Your task to perform on an android device: Open CNN.com Image 0: 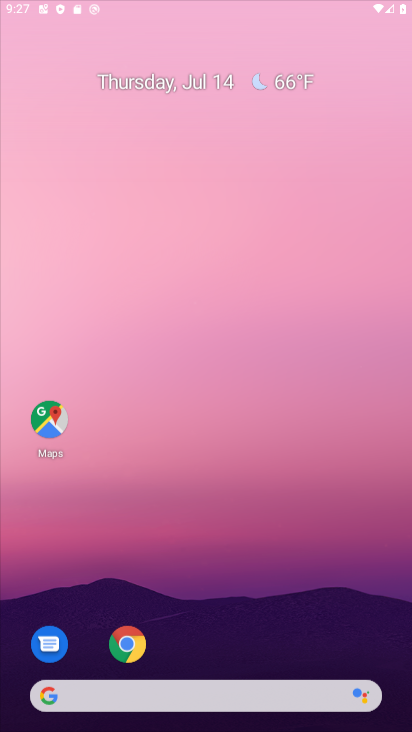
Step 0: click (203, 380)
Your task to perform on an android device: Open CNN.com Image 1: 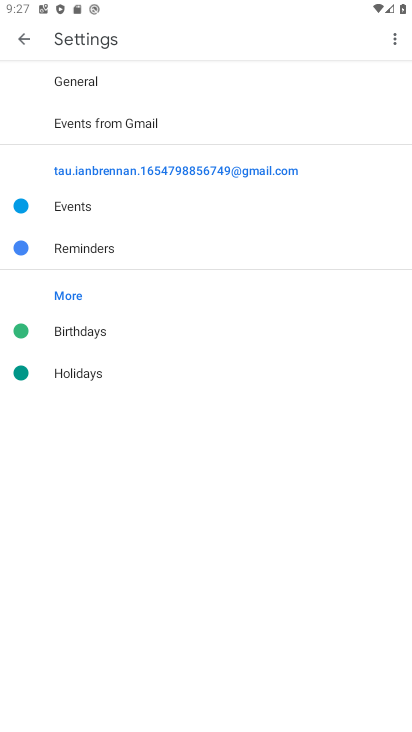
Step 1: click (17, 31)
Your task to perform on an android device: Open CNN.com Image 2: 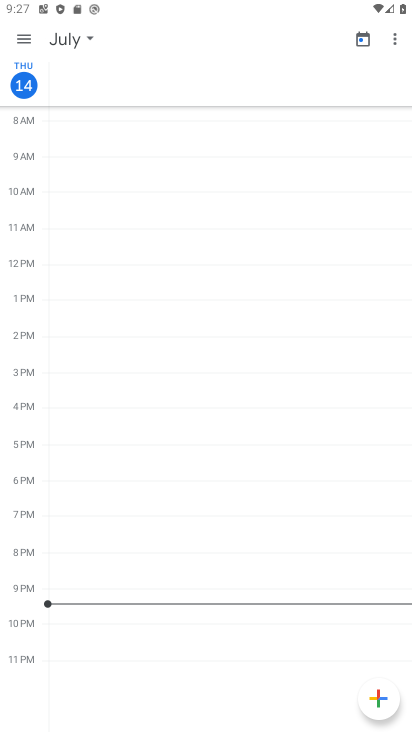
Step 2: press back button
Your task to perform on an android device: Open CNN.com Image 3: 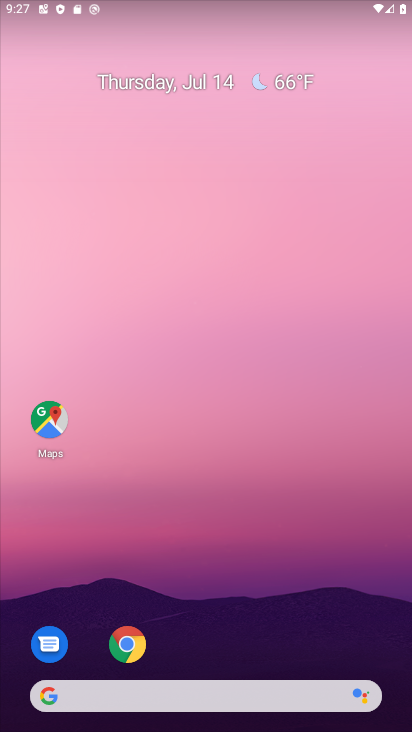
Step 3: click (165, 144)
Your task to perform on an android device: Open CNN.com Image 4: 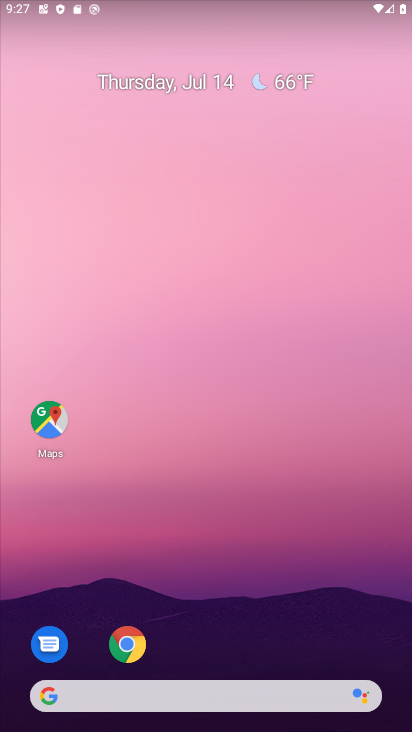
Step 4: drag from (156, 550) to (31, 80)
Your task to perform on an android device: Open CNN.com Image 5: 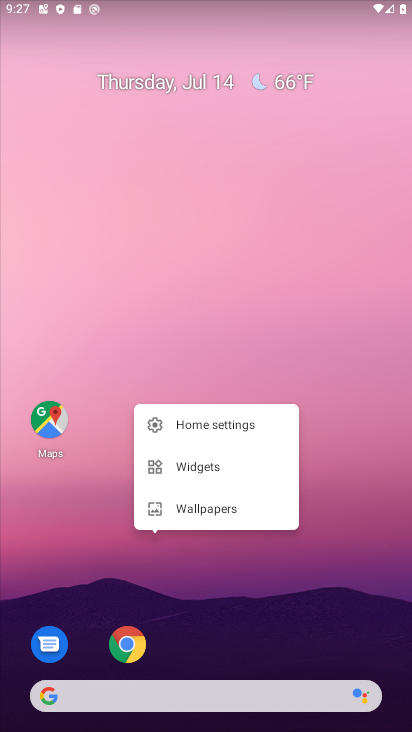
Step 5: click (39, 187)
Your task to perform on an android device: Open CNN.com Image 6: 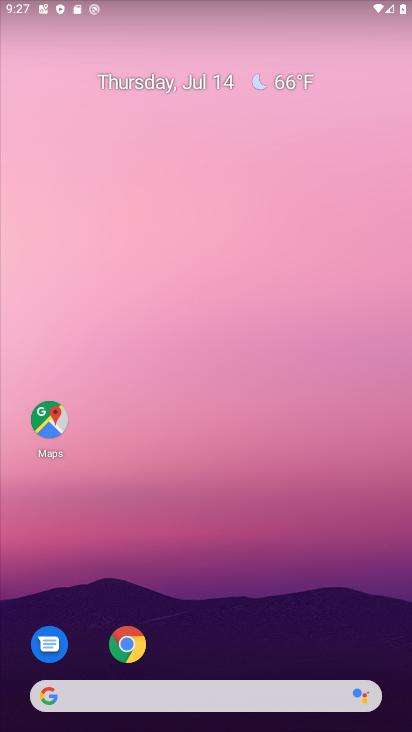
Step 6: click (117, 234)
Your task to perform on an android device: Open CNN.com Image 7: 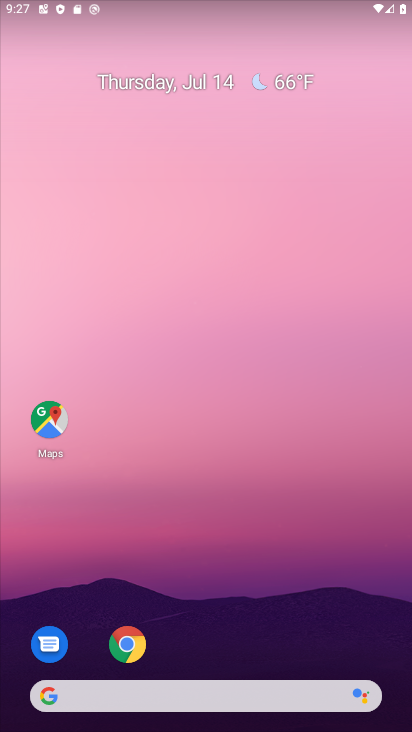
Step 7: drag from (166, 354) to (123, 95)
Your task to perform on an android device: Open CNN.com Image 8: 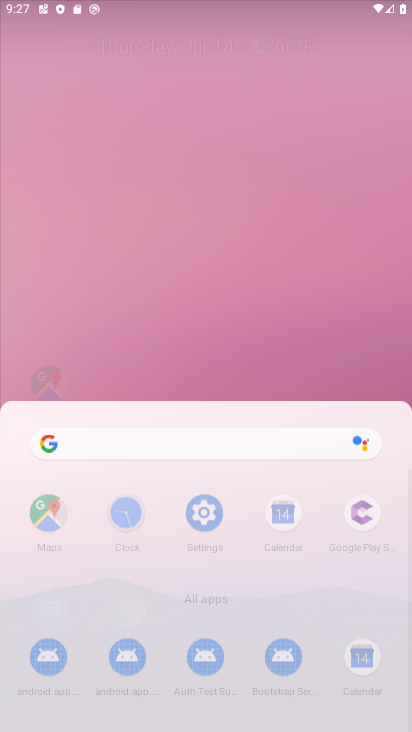
Step 8: drag from (302, 654) to (163, 133)
Your task to perform on an android device: Open CNN.com Image 9: 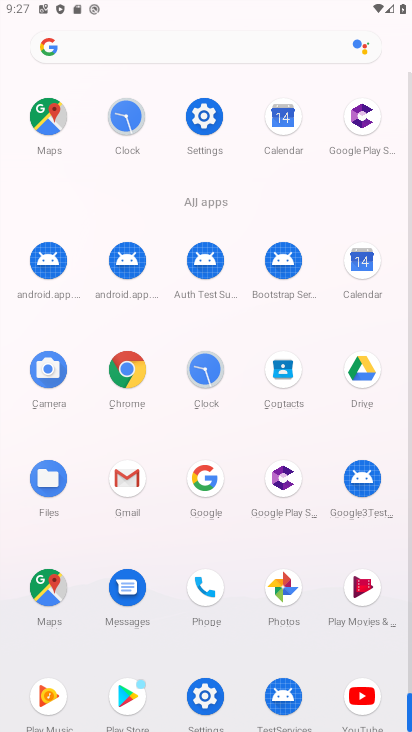
Step 9: click (132, 379)
Your task to perform on an android device: Open CNN.com Image 10: 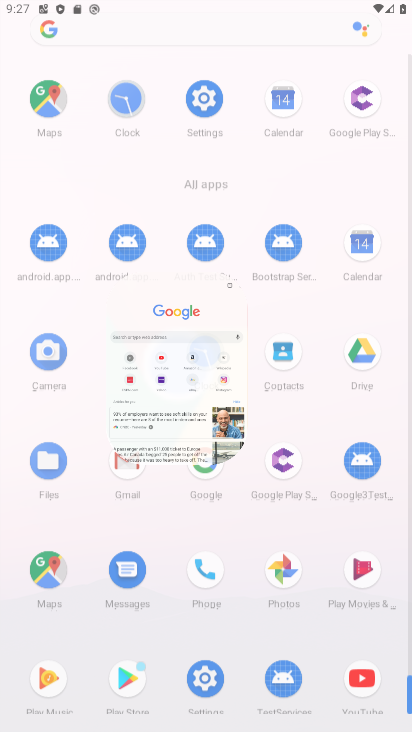
Step 10: click (126, 370)
Your task to perform on an android device: Open CNN.com Image 11: 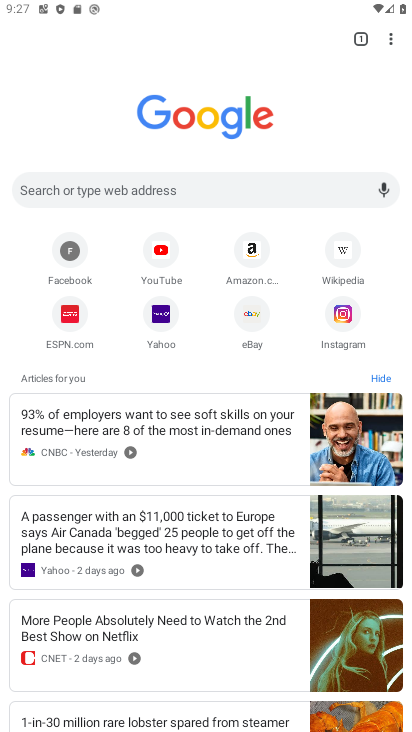
Step 11: click (63, 192)
Your task to perform on an android device: Open CNN.com Image 12: 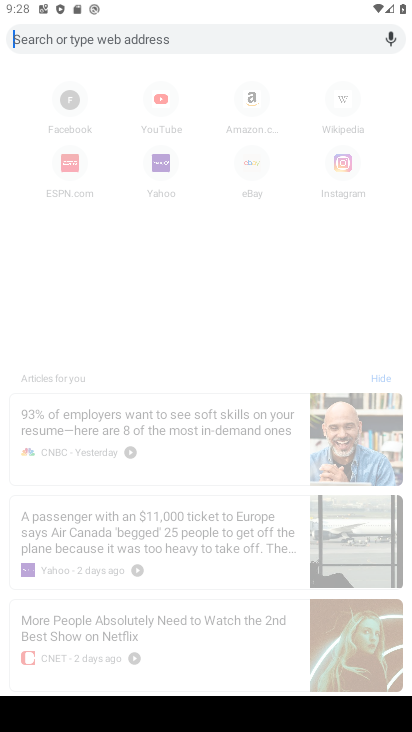
Step 12: type "CNN.COM"
Your task to perform on an android device: Open CNN.com Image 13: 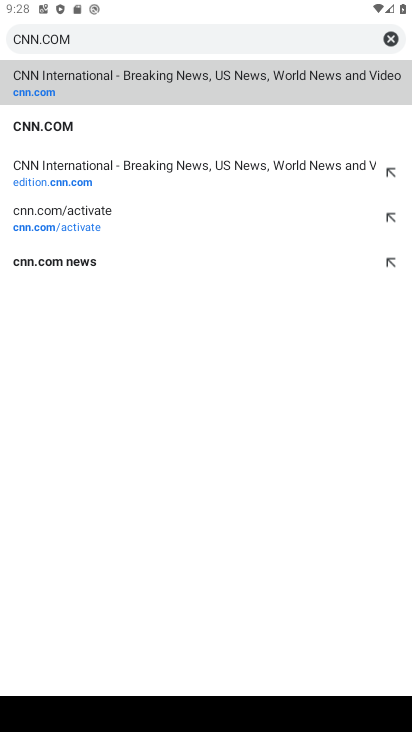
Step 13: click (87, 100)
Your task to perform on an android device: Open CNN.com Image 14: 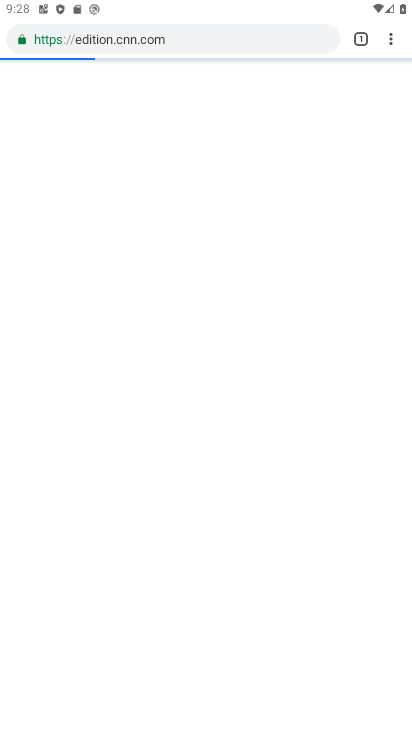
Step 14: click (85, 90)
Your task to perform on an android device: Open CNN.com Image 15: 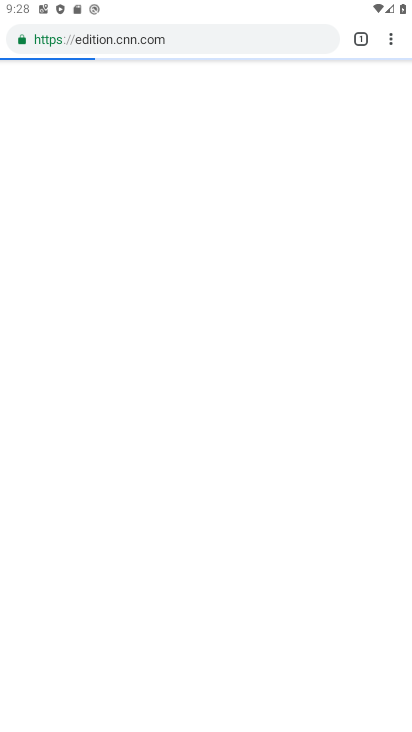
Step 15: click (98, 77)
Your task to perform on an android device: Open CNN.com Image 16: 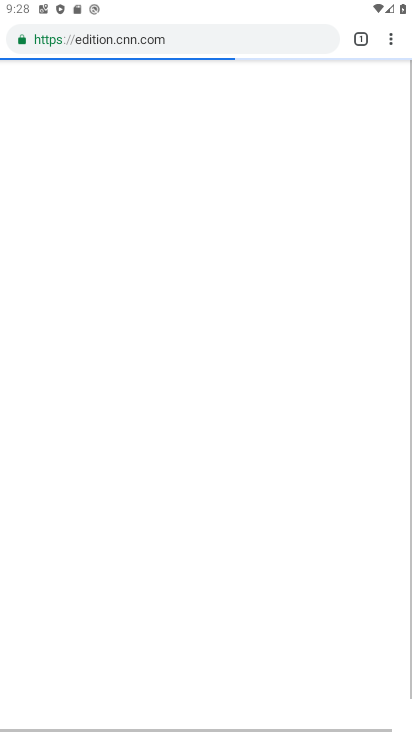
Step 16: click (101, 78)
Your task to perform on an android device: Open CNN.com Image 17: 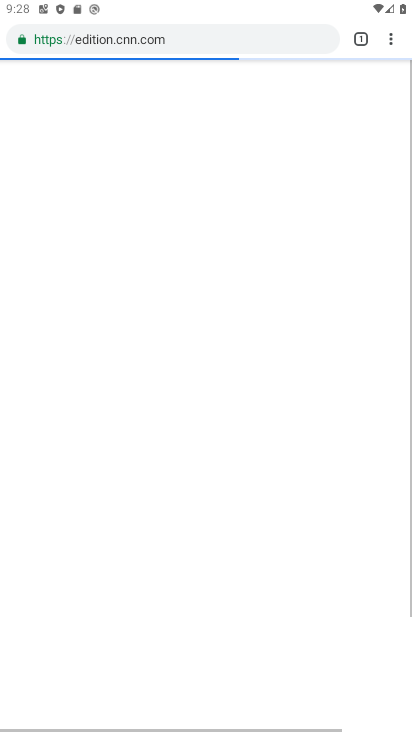
Step 17: task complete